Your task to perform on an android device: check data usage Image 0: 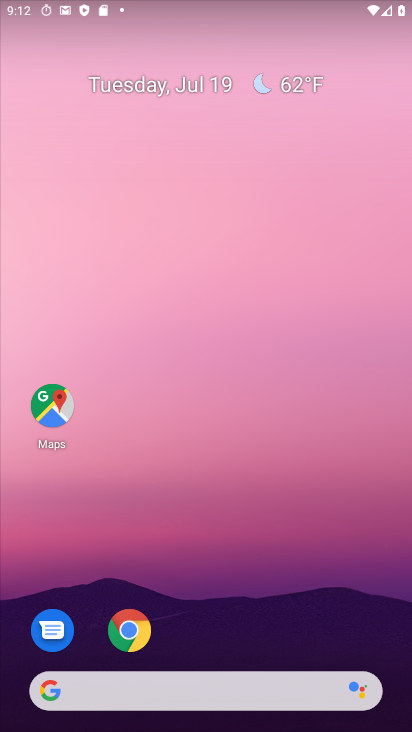
Step 0: drag from (32, 705) to (157, 216)
Your task to perform on an android device: check data usage Image 1: 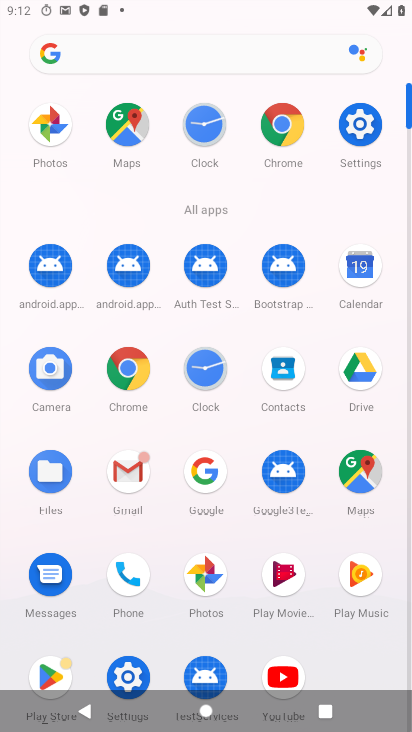
Step 1: click (115, 672)
Your task to perform on an android device: check data usage Image 2: 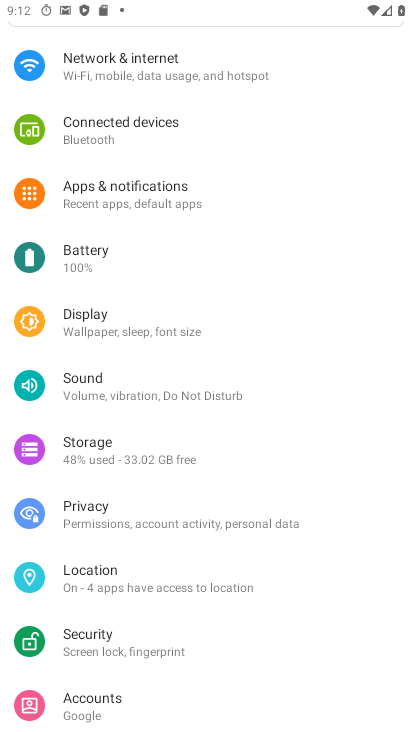
Step 2: click (125, 77)
Your task to perform on an android device: check data usage Image 3: 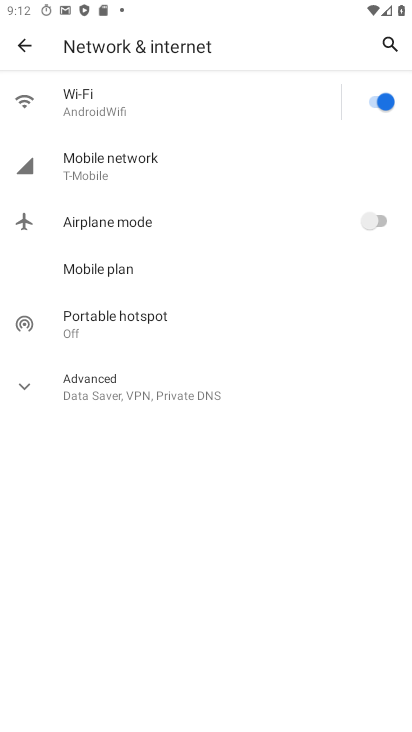
Step 3: click (111, 171)
Your task to perform on an android device: check data usage Image 4: 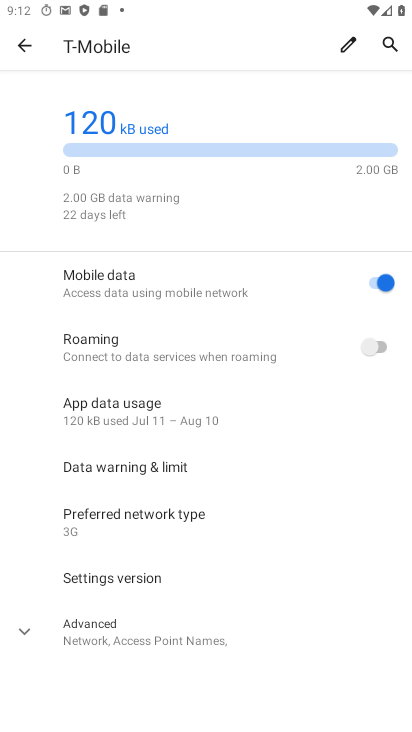
Step 4: task complete